Your task to perform on an android device: Open Maps and search for coffee Image 0: 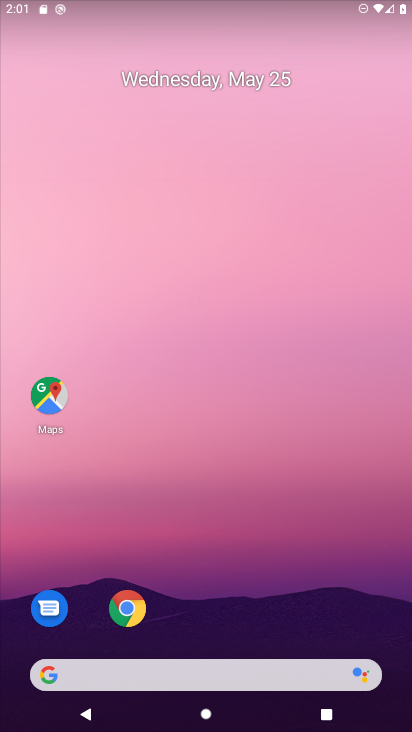
Step 0: click (50, 397)
Your task to perform on an android device: Open Maps and search for coffee Image 1: 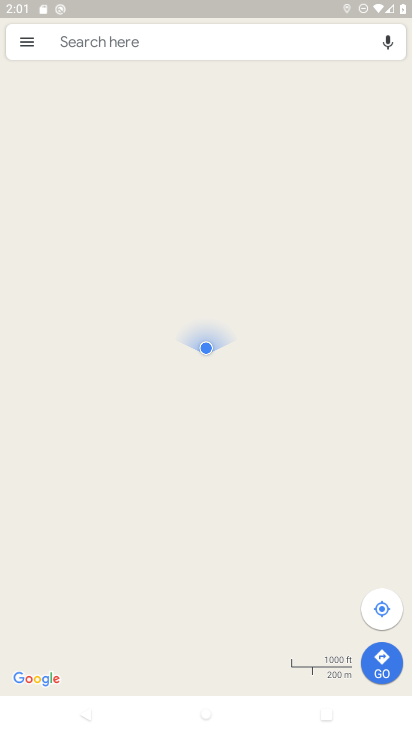
Step 1: click (132, 49)
Your task to perform on an android device: Open Maps and search for coffee Image 2: 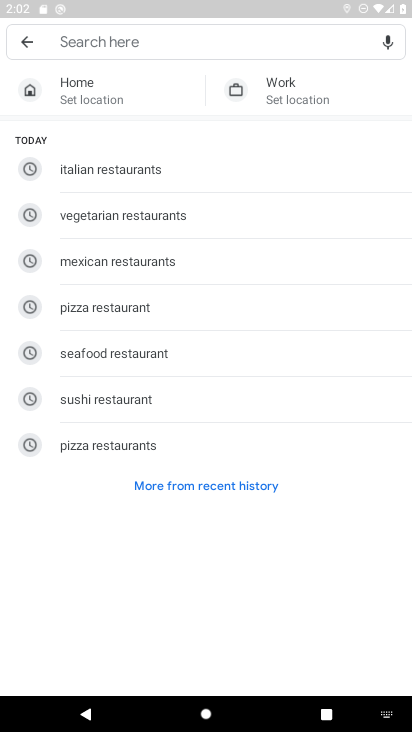
Step 2: type "coffee"
Your task to perform on an android device: Open Maps and search for coffee Image 3: 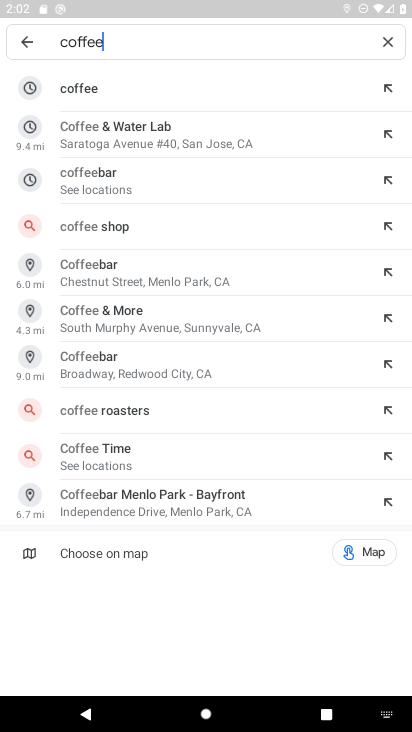
Step 3: click (96, 74)
Your task to perform on an android device: Open Maps and search for coffee Image 4: 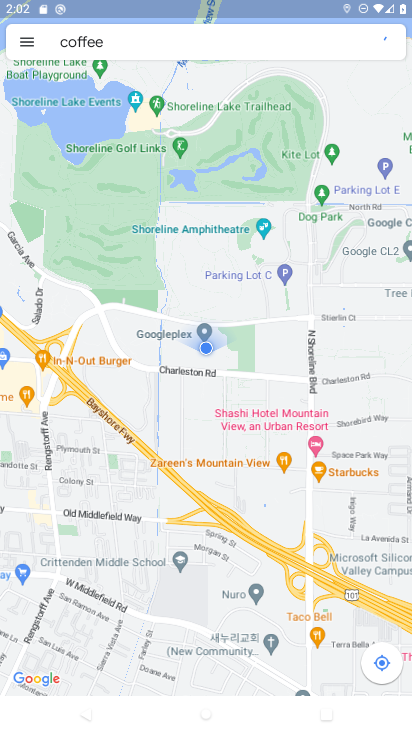
Step 4: task complete